Your task to perform on an android device: Open Chrome and go to settings Image 0: 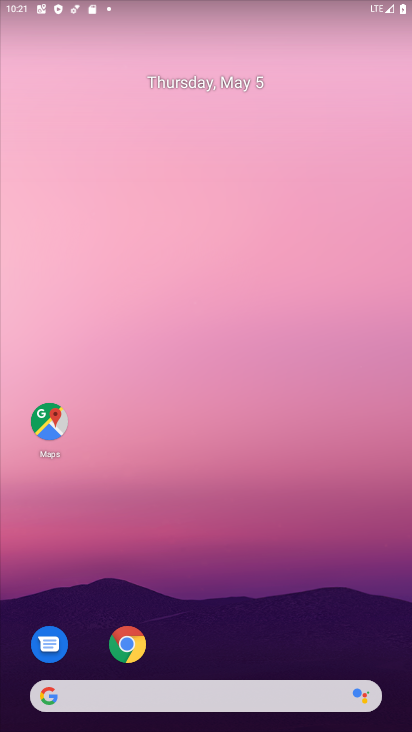
Step 0: click (133, 644)
Your task to perform on an android device: Open Chrome and go to settings Image 1: 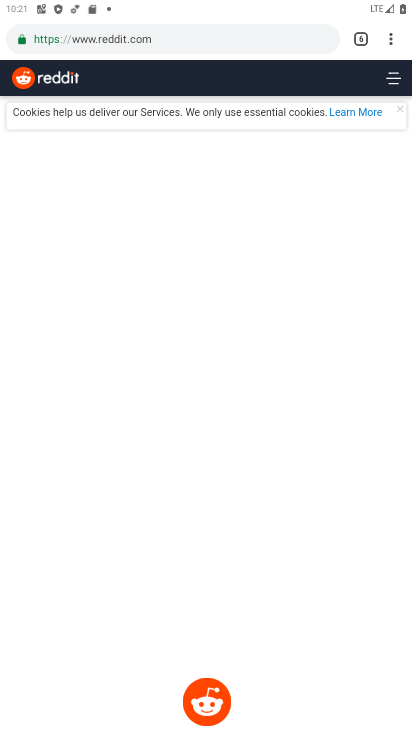
Step 1: click (391, 38)
Your task to perform on an android device: Open Chrome and go to settings Image 2: 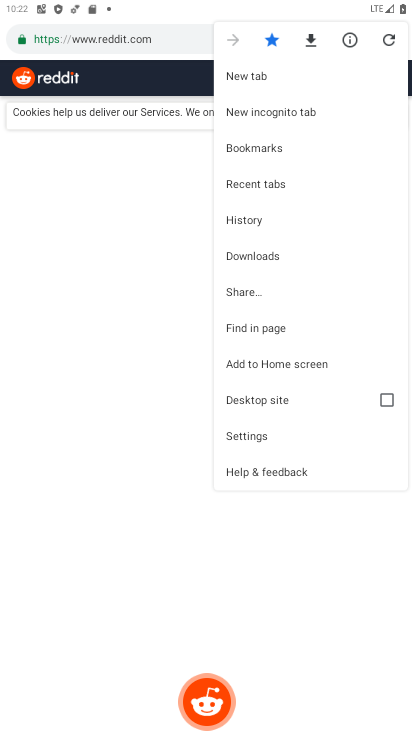
Step 2: click (258, 443)
Your task to perform on an android device: Open Chrome and go to settings Image 3: 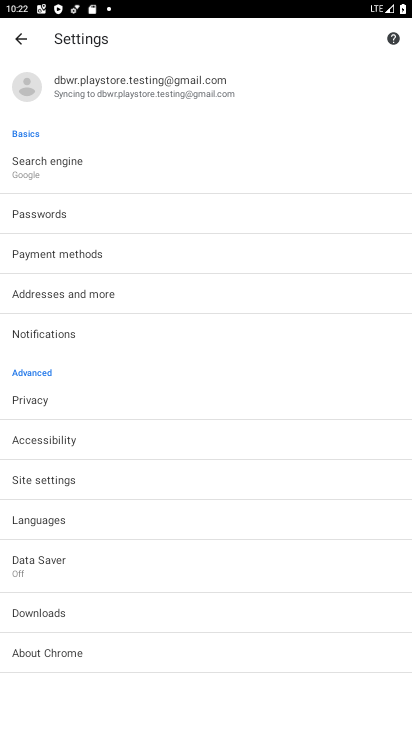
Step 3: task complete